Your task to perform on an android device: turn on translation in the chrome app Image 0: 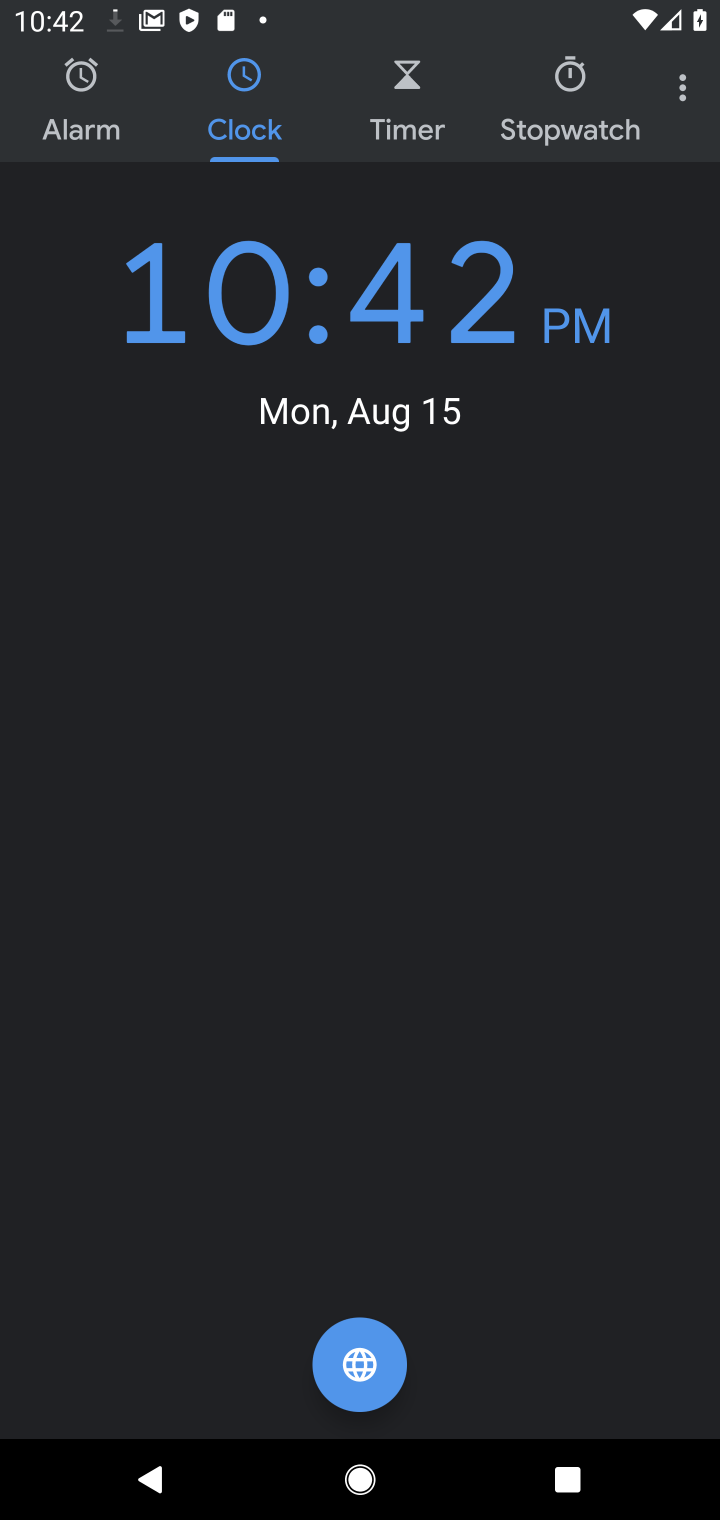
Step 0: press home button
Your task to perform on an android device: turn on translation in the chrome app Image 1: 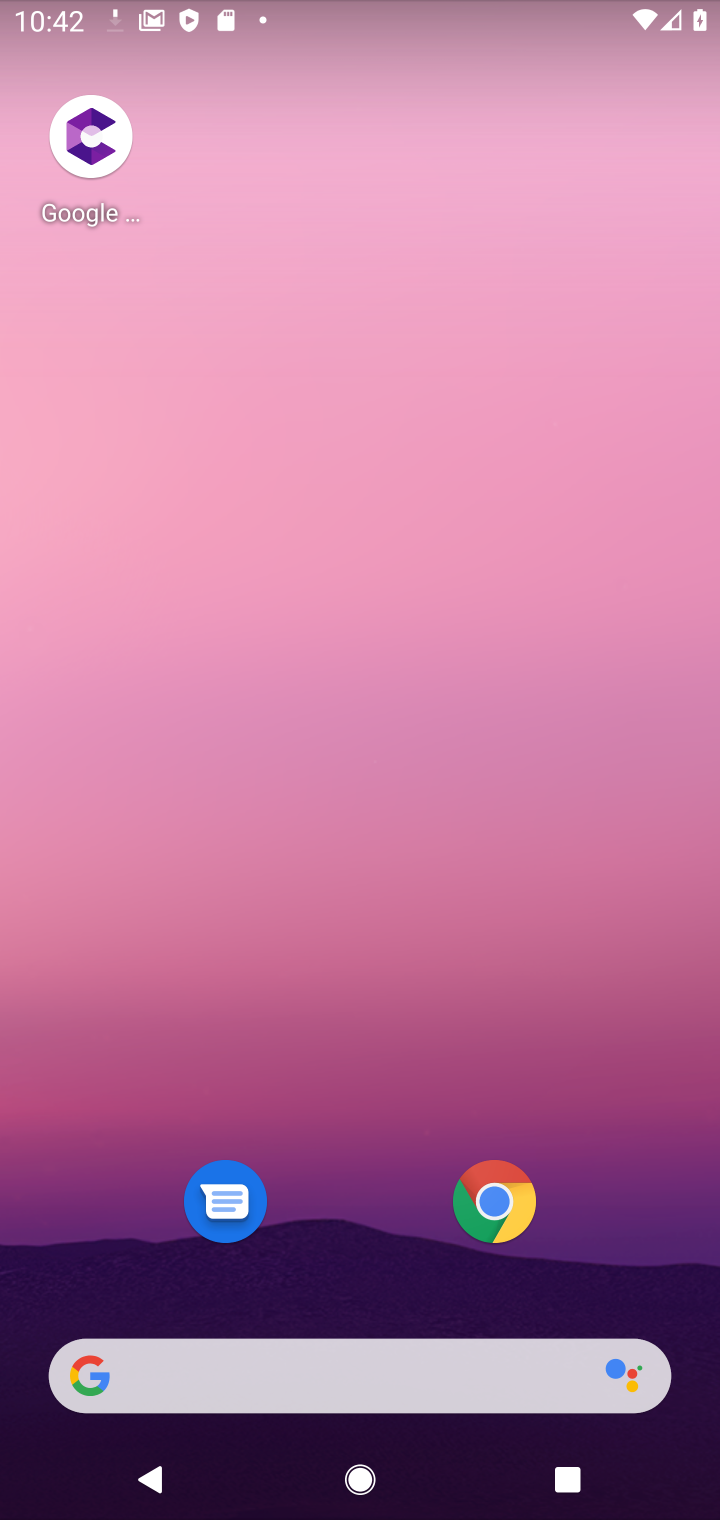
Step 1: click (482, 1212)
Your task to perform on an android device: turn on translation in the chrome app Image 2: 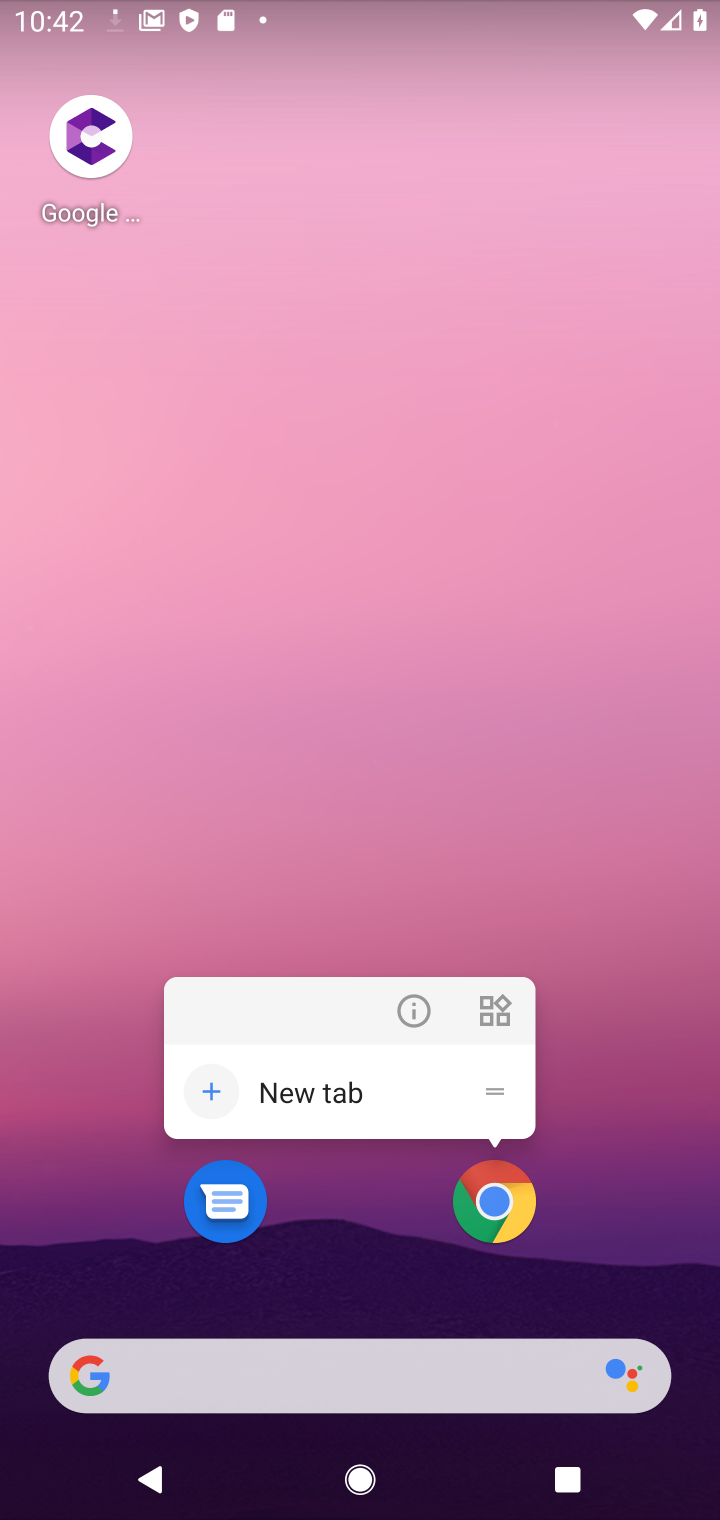
Step 2: click (493, 1217)
Your task to perform on an android device: turn on translation in the chrome app Image 3: 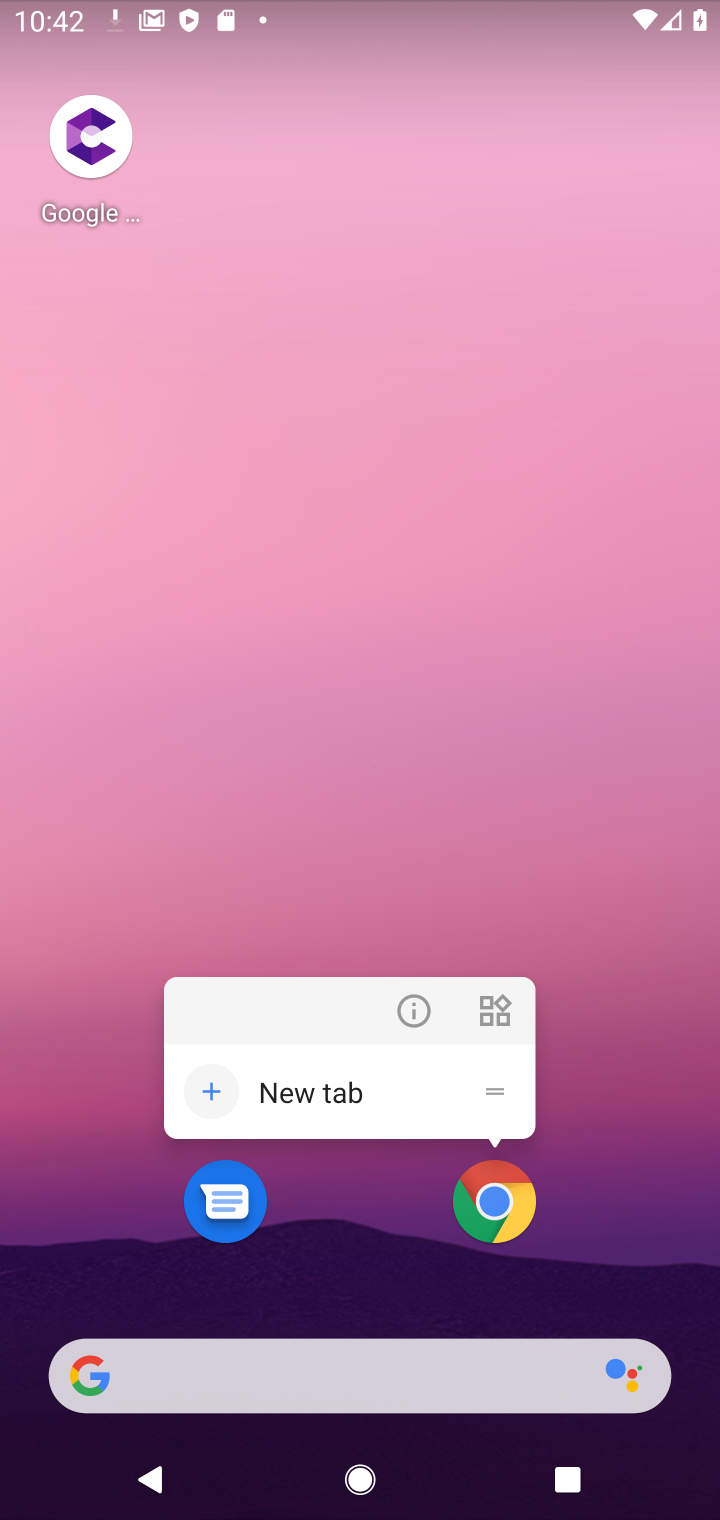
Step 3: click (491, 1203)
Your task to perform on an android device: turn on translation in the chrome app Image 4: 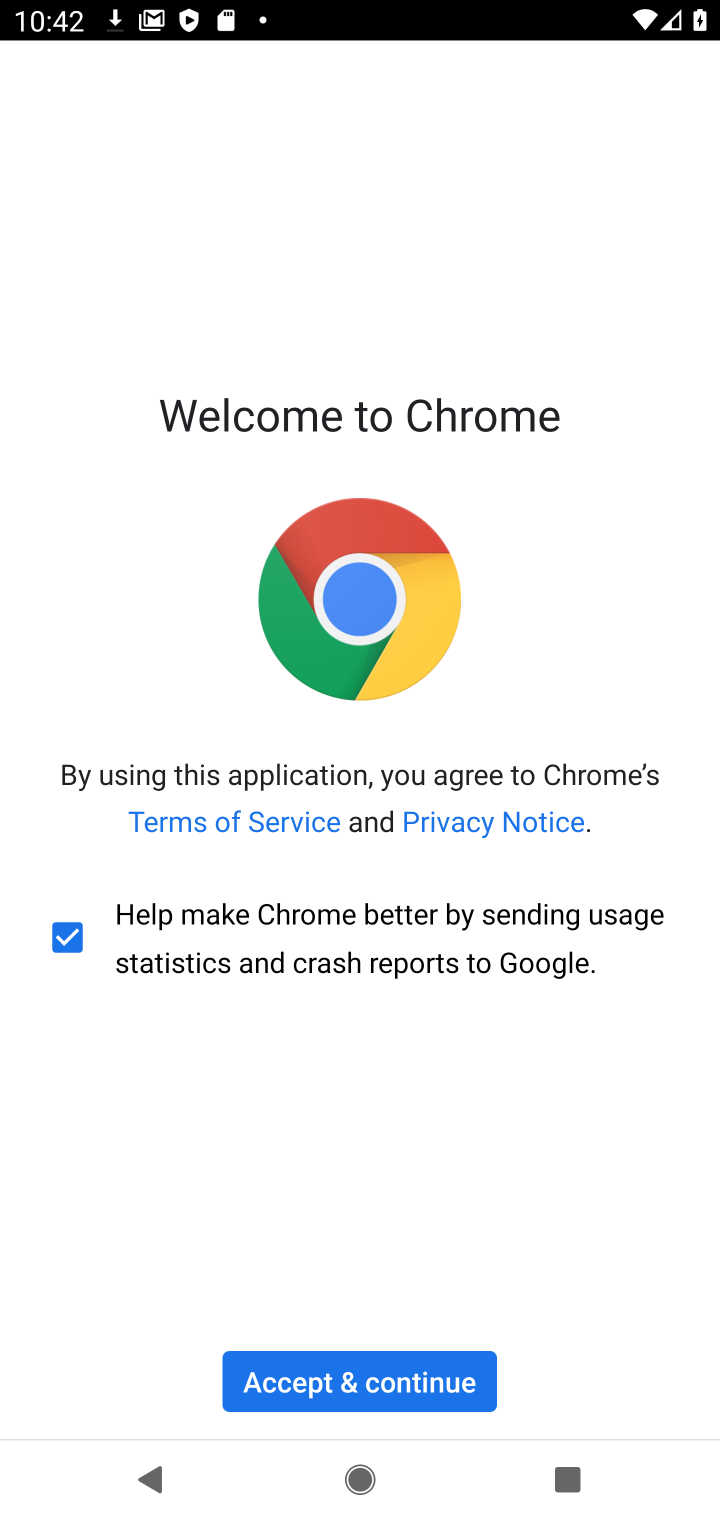
Step 4: click (349, 1395)
Your task to perform on an android device: turn on translation in the chrome app Image 5: 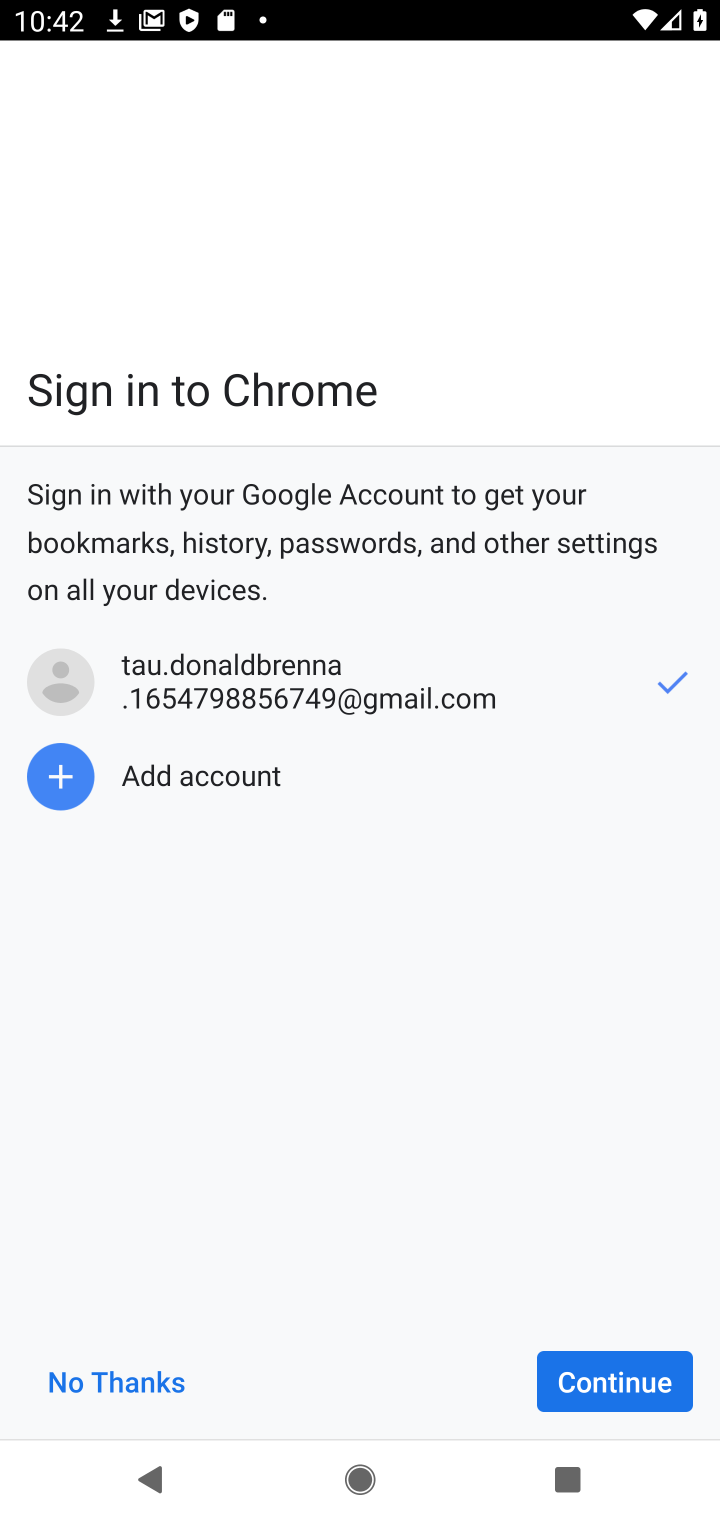
Step 5: click (552, 1392)
Your task to perform on an android device: turn on translation in the chrome app Image 6: 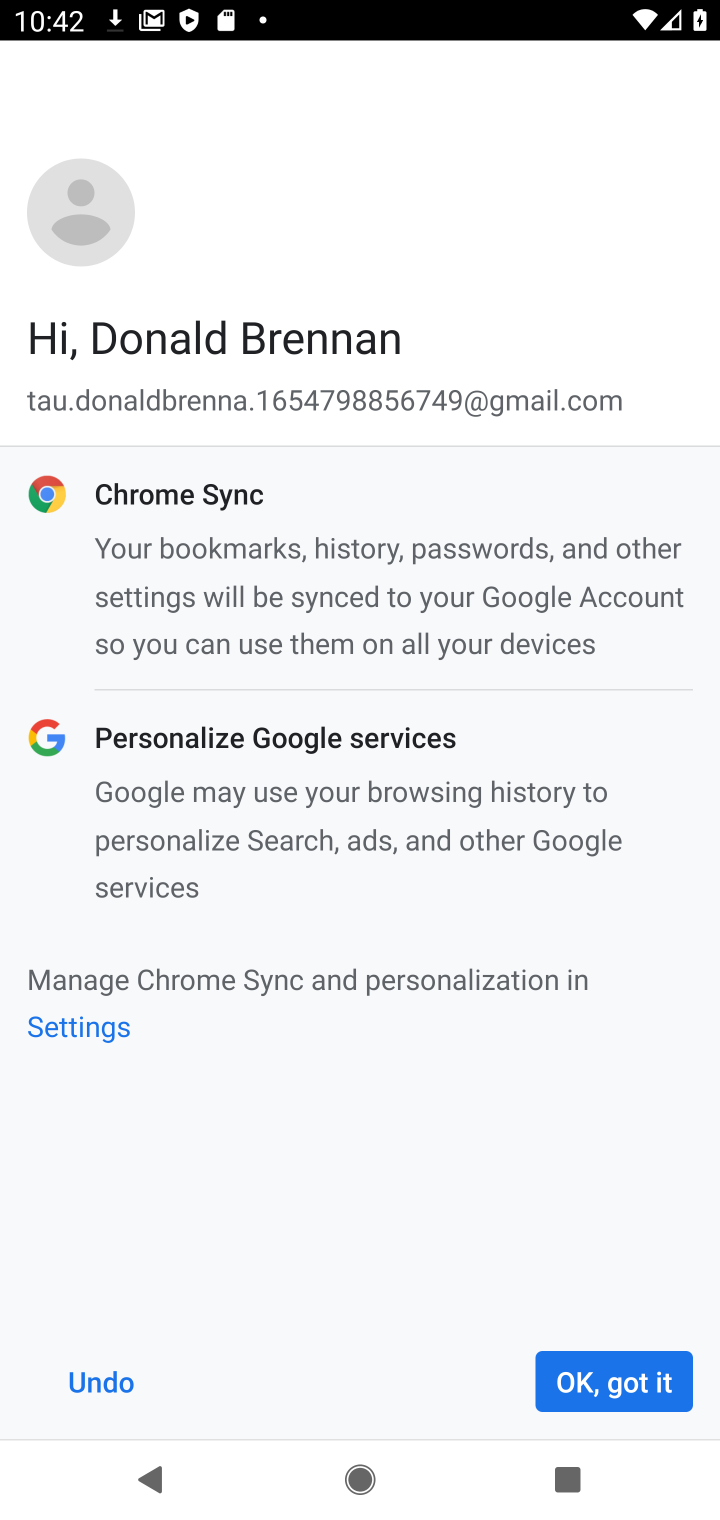
Step 6: click (552, 1392)
Your task to perform on an android device: turn on translation in the chrome app Image 7: 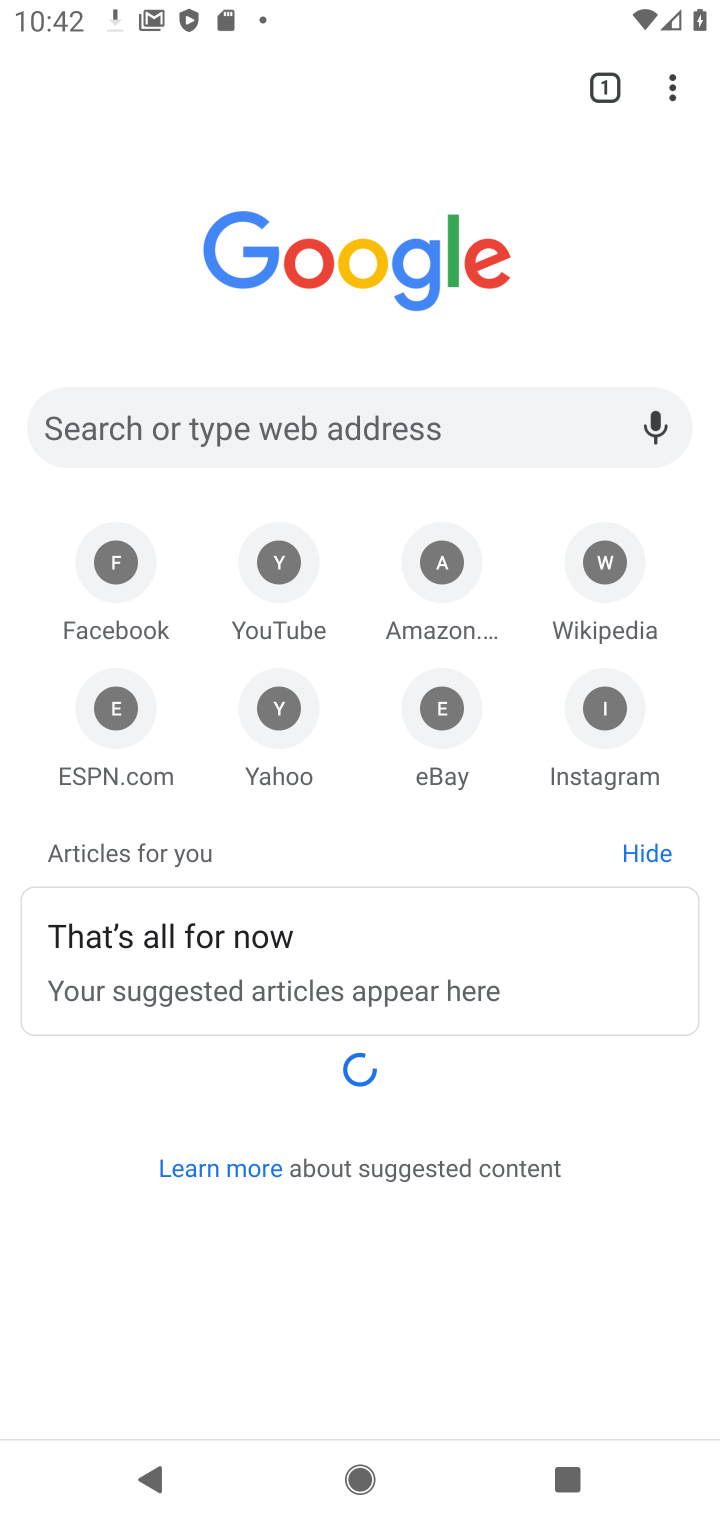
Step 7: click (682, 92)
Your task to perform on an android device: turn on translation in the chrome app Image 8: 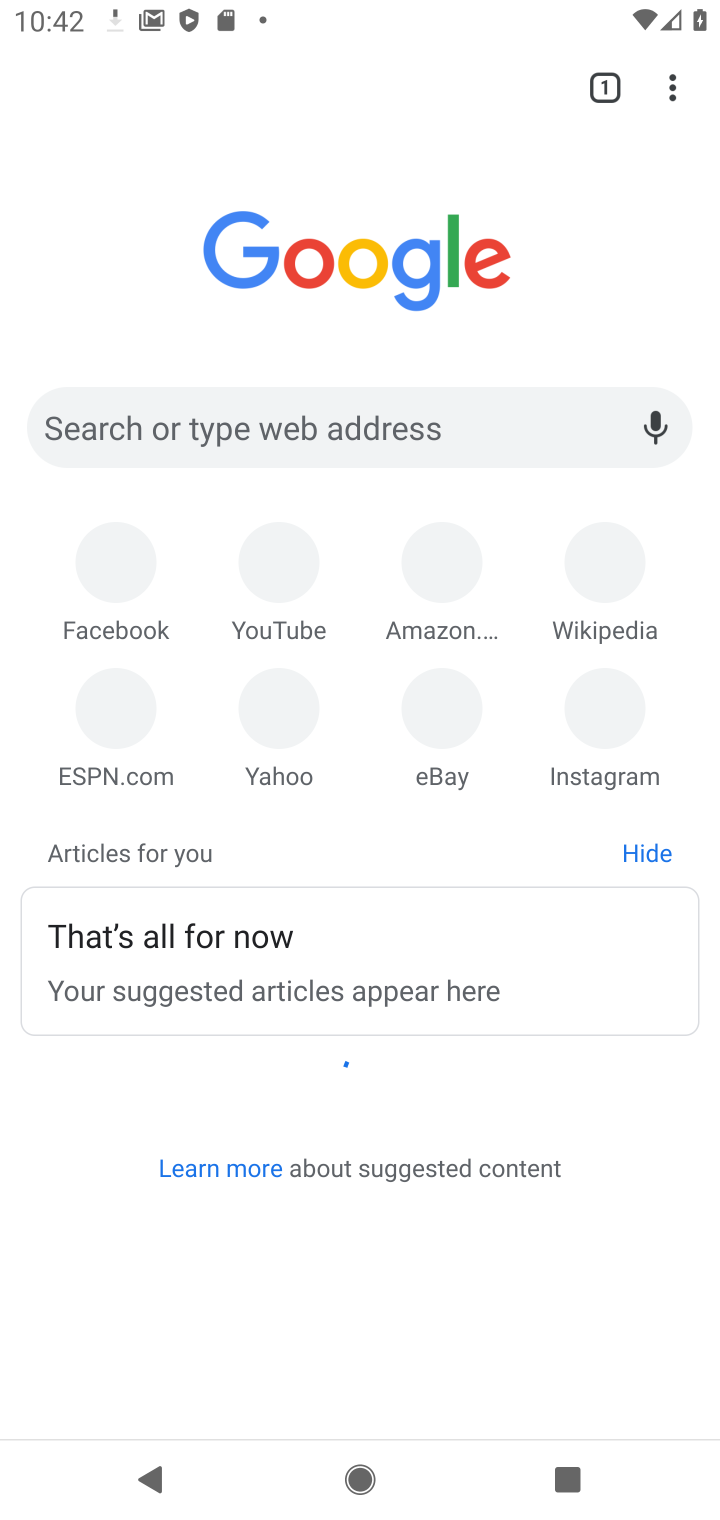
Step 8: click (671, 90)
Your task to perform on an android device: turn on translation in the chrome app Image 9: 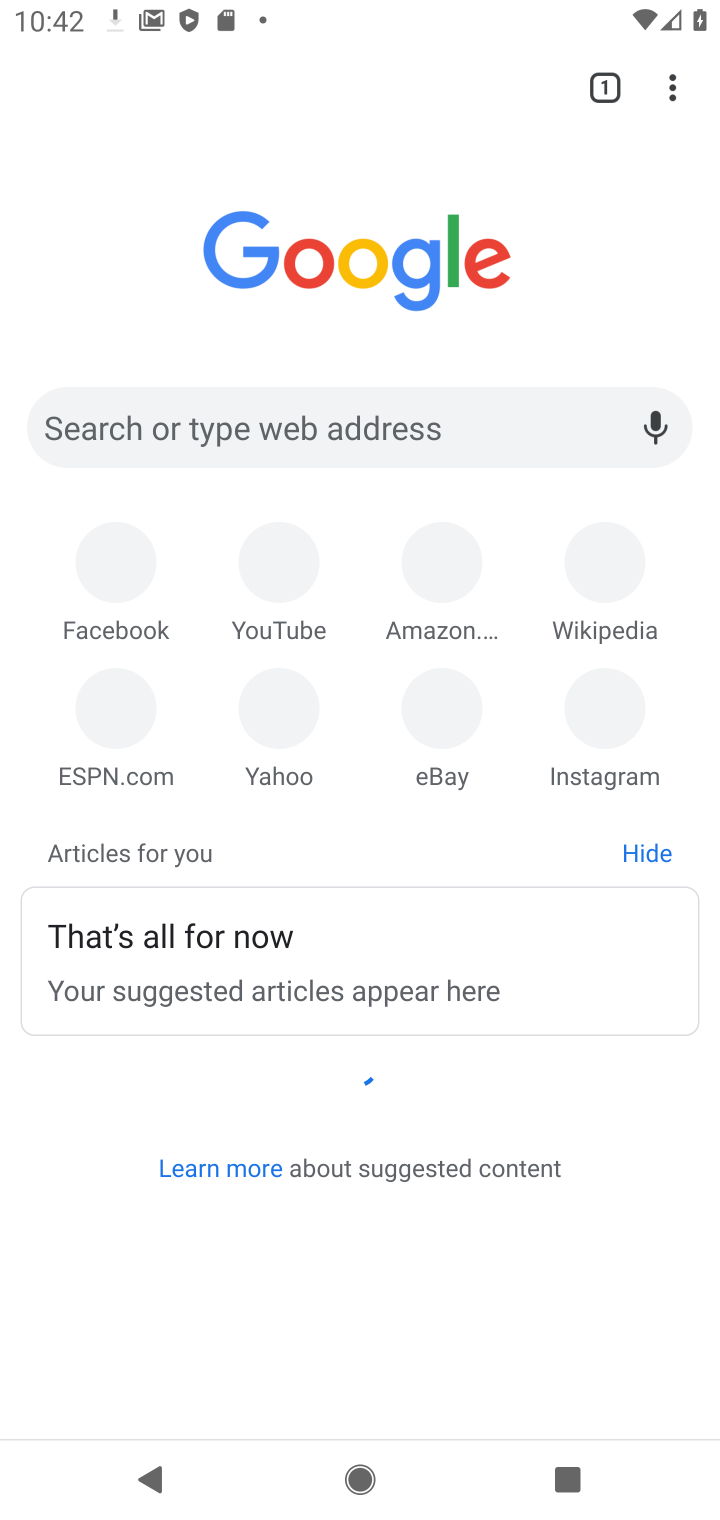
Step 9: click (664, 84)
Your task to perform on an android device: turn on translation in the chrome app Image 10: 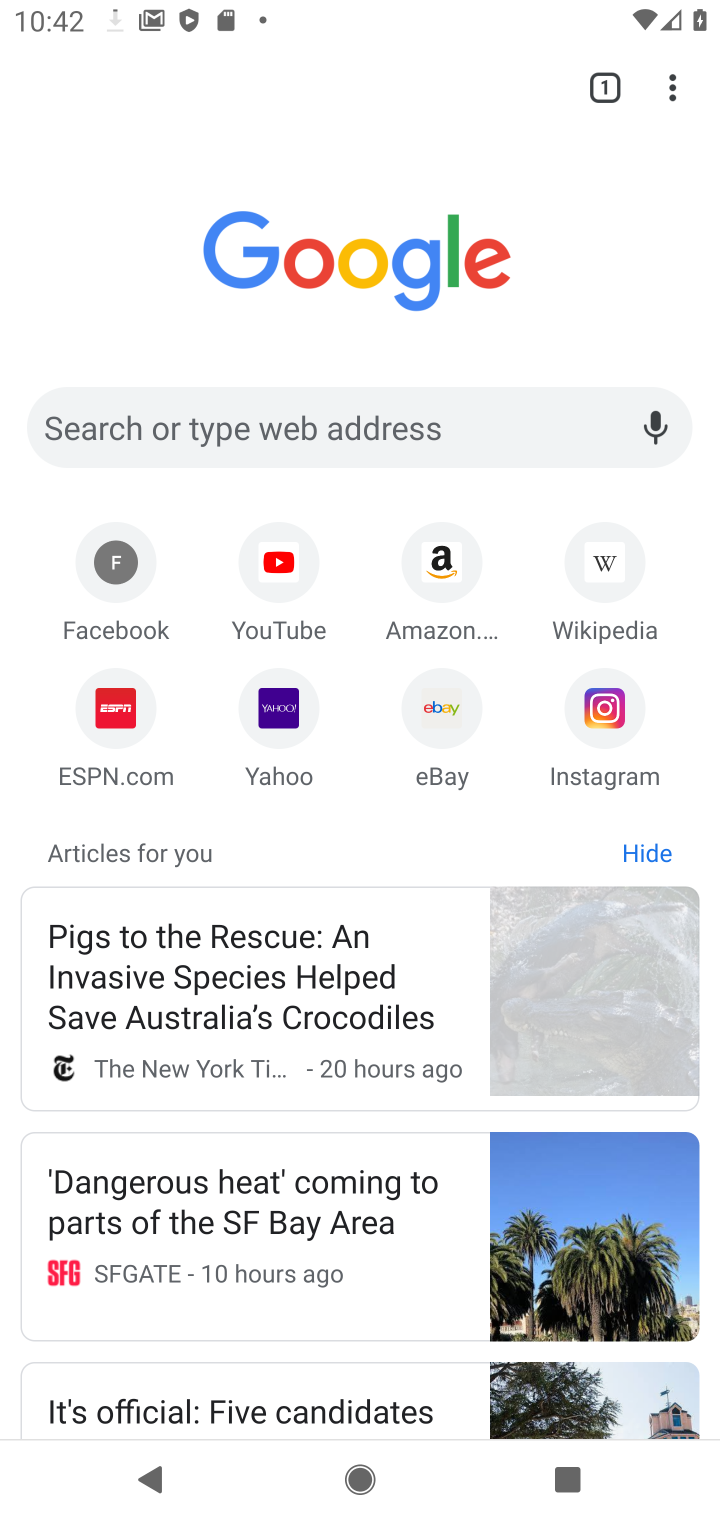
Step 10: click (671, 82)
Your task to perform on an android device: turn on translation in the chrome app Image 11: 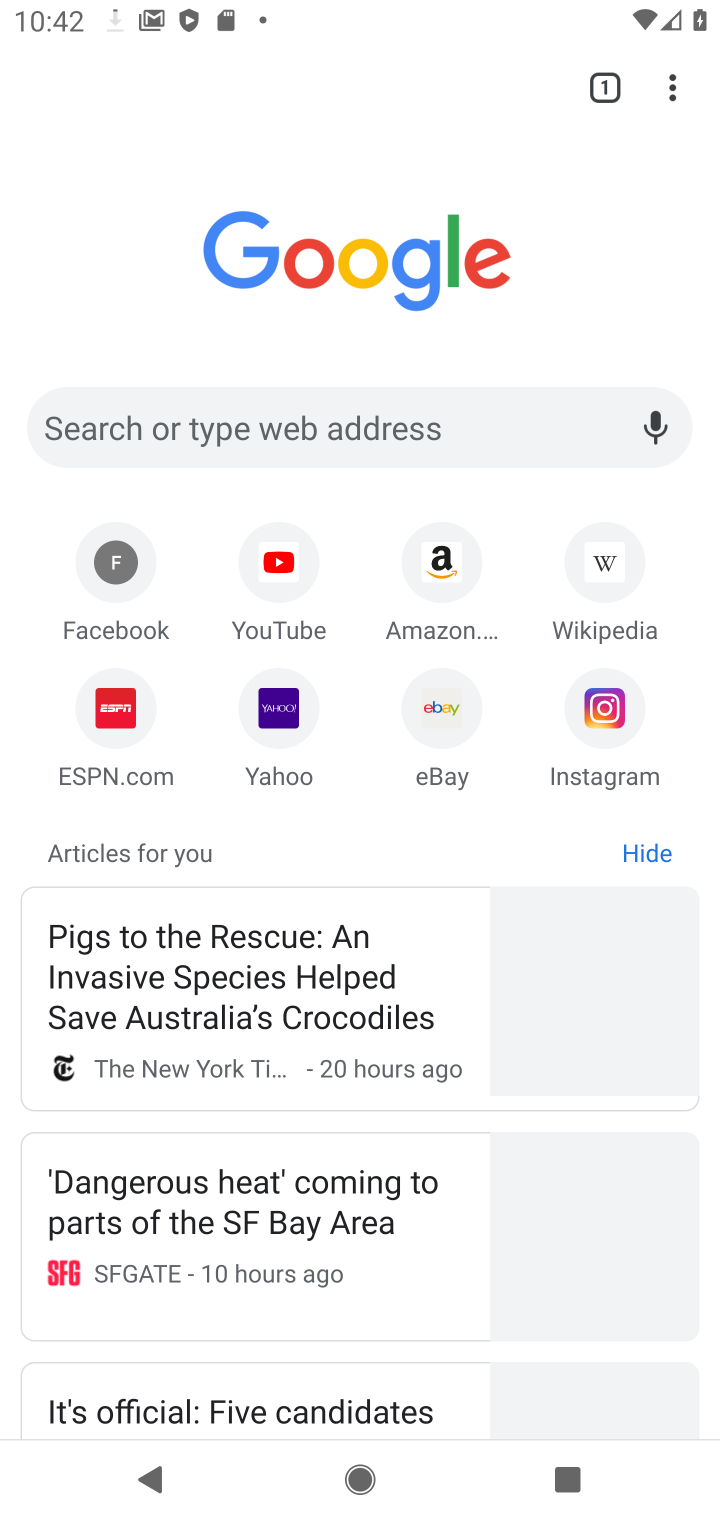
Step 11: click (670, 95)
Your task to perform on an android device: turn on translation in the chrome app Image 12: 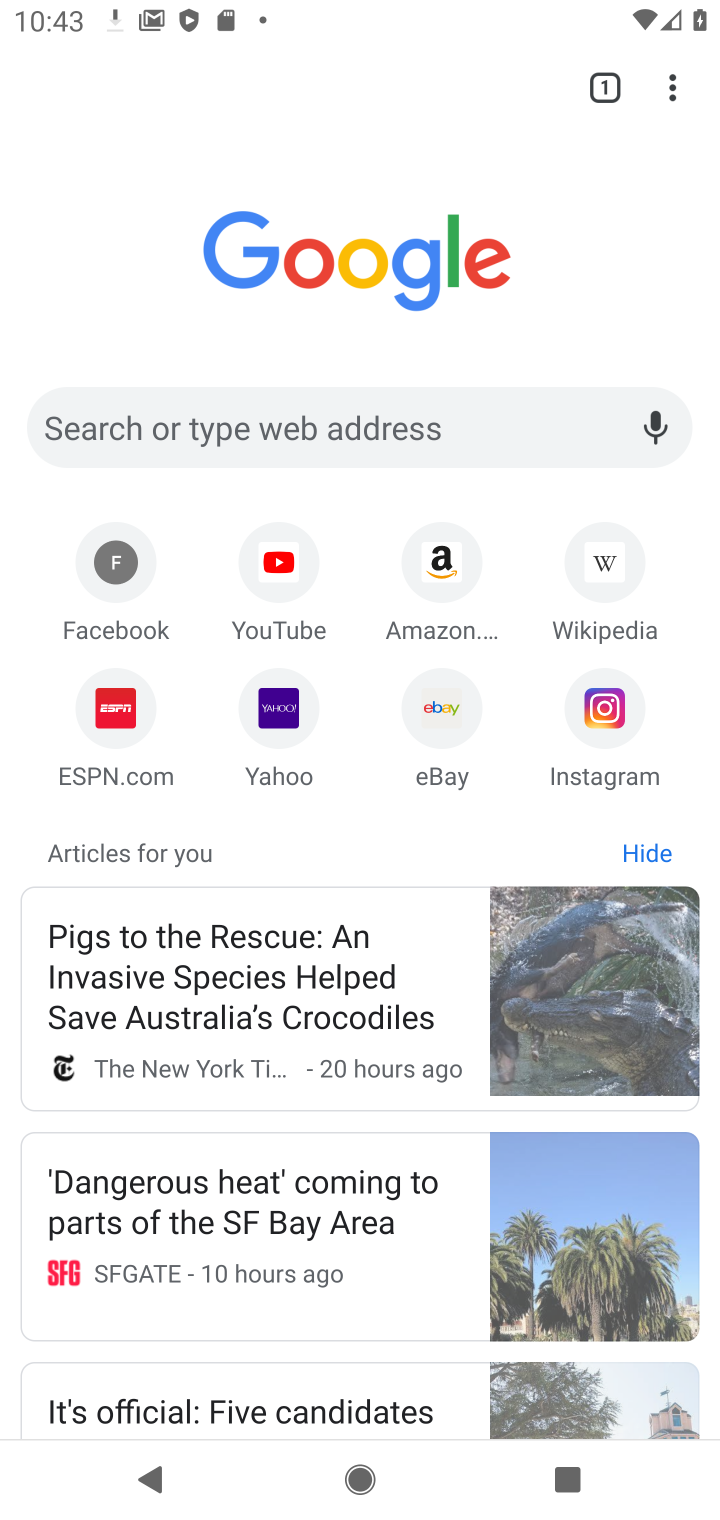
Step 12: click (672, 83)
Your task to perform on an android device: turn on translation in the chrome app Image 13: 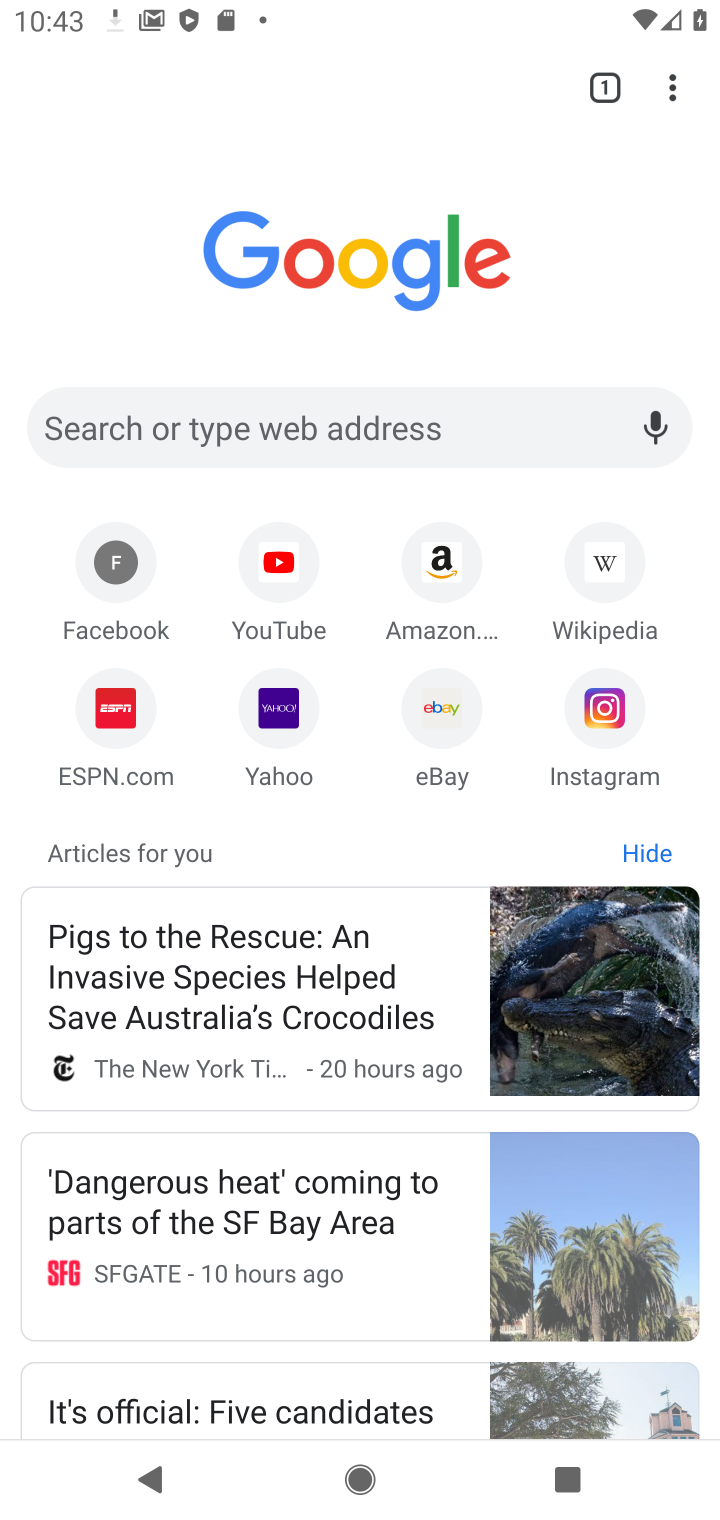
Step 13: click (663, 95)
Your task to perform on an android device: turn on translation in the chrome app Image 14: 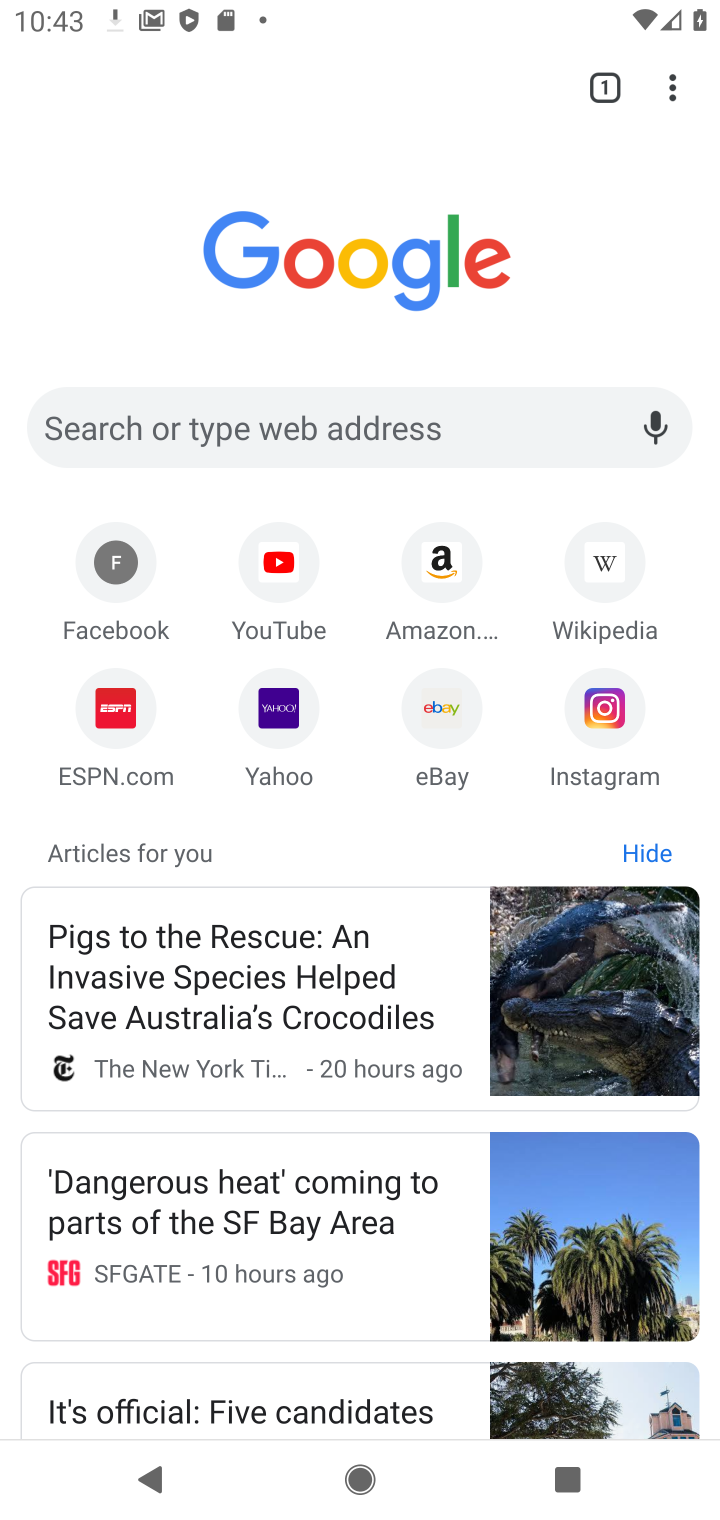
Step 14: click (663, 85)
Your task to perform on an android device: turn on translation in the chrome app Image 15: 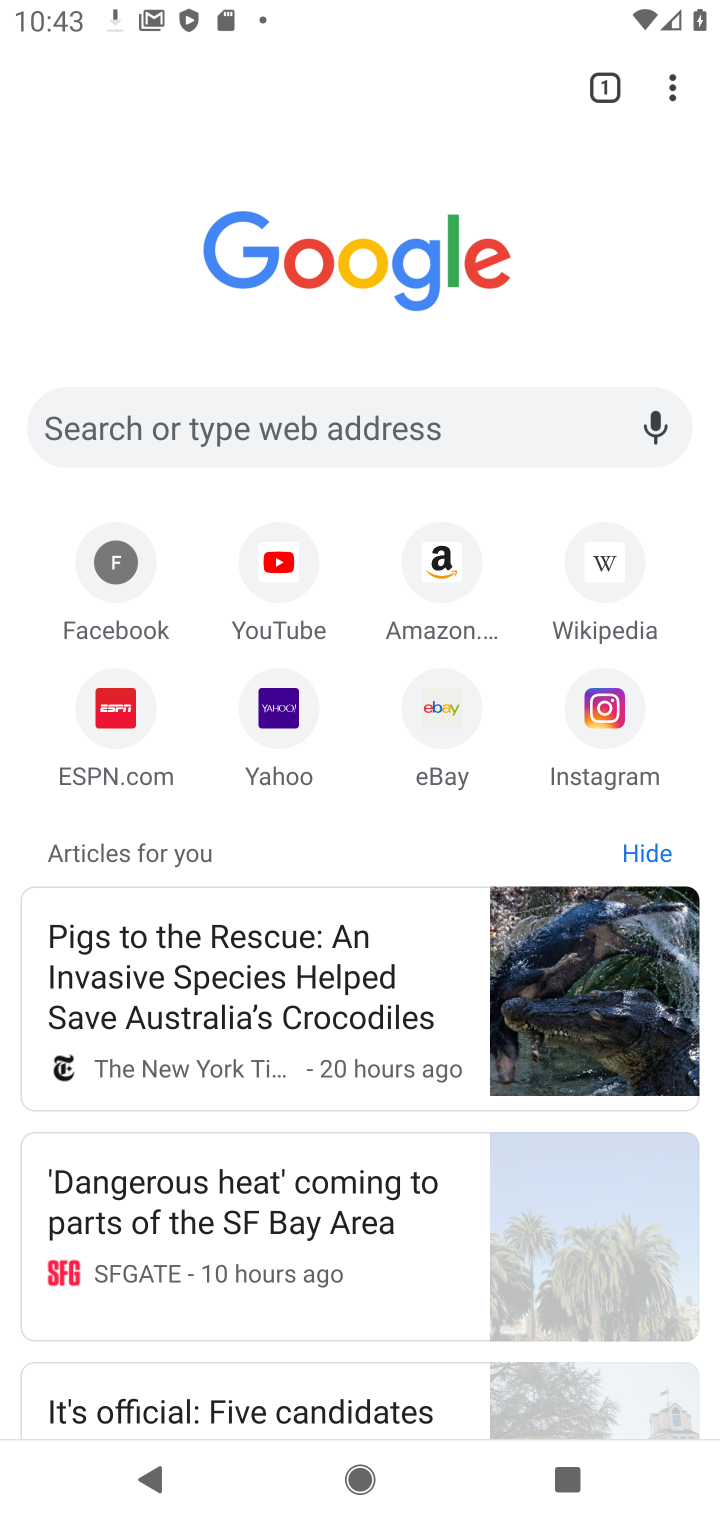
Step 15: click (671, 87)
Your task to perform on an android device: turn on translation in the chrome app Image 16: 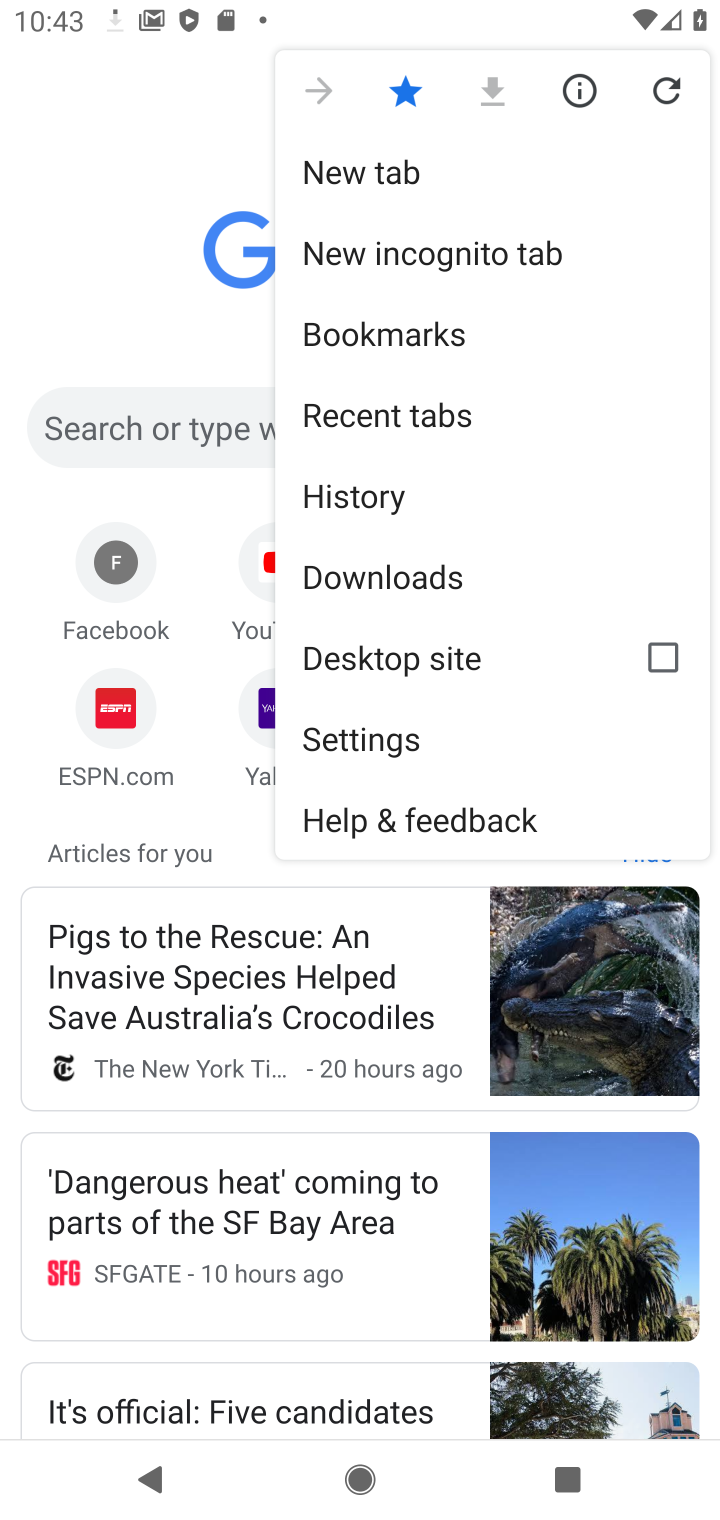
Step 16: click (321, 716)
Your task to perform on an android device: turn on translation in the chrome app Image 17: 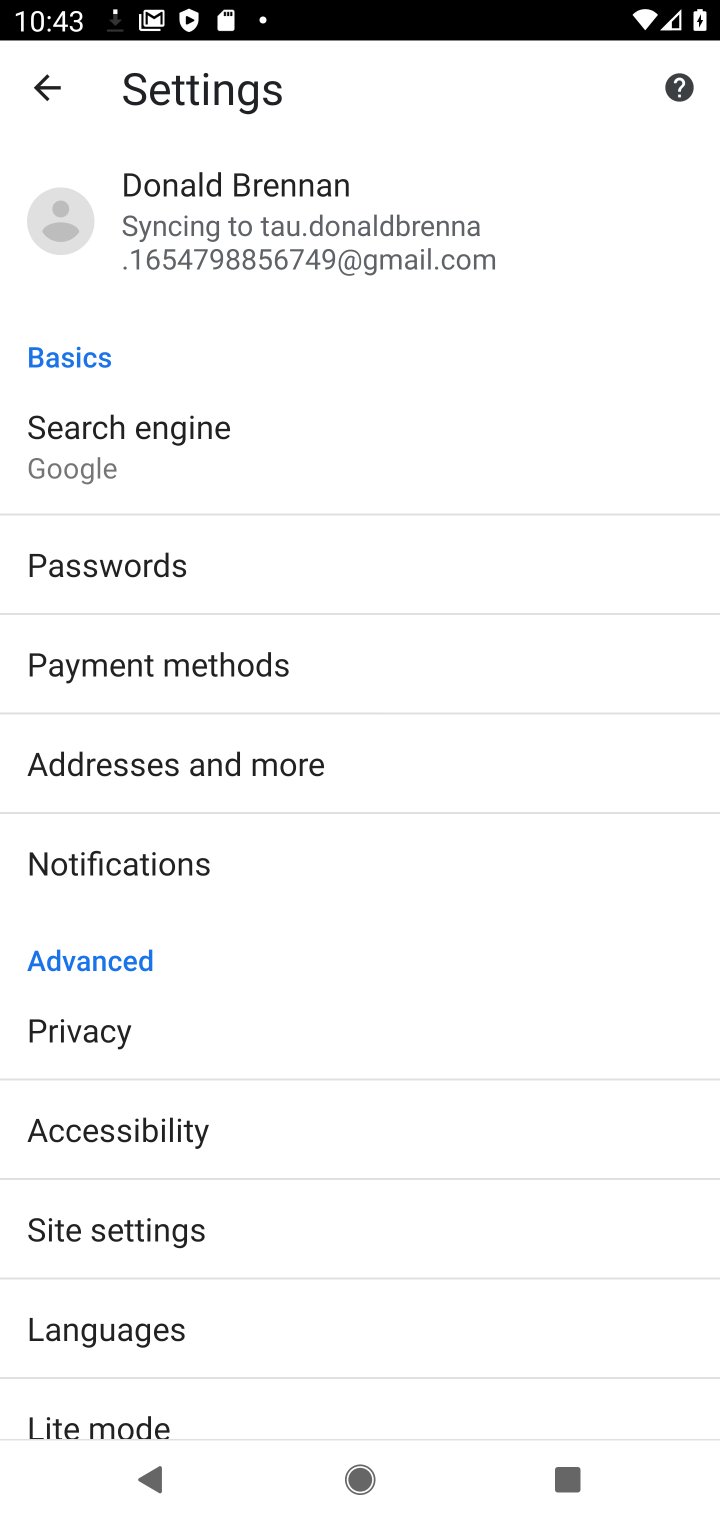
Step 17: click (128, 1324)
Your task to perform on an android device: turn on translation in the chrome app Image 18: 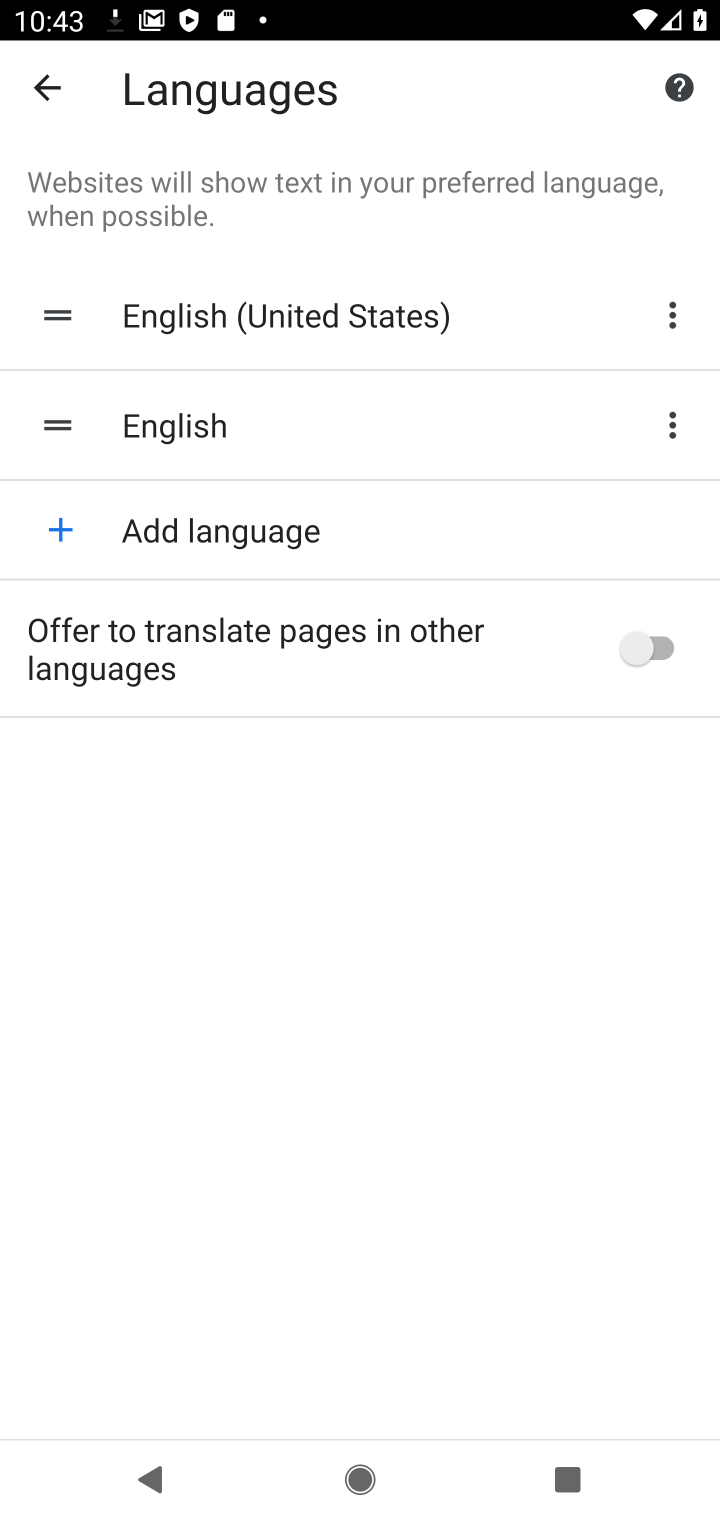
Step 18: click (644, 655)
Your task to perform on an android device: turn on translation in the chrome app Image 19: 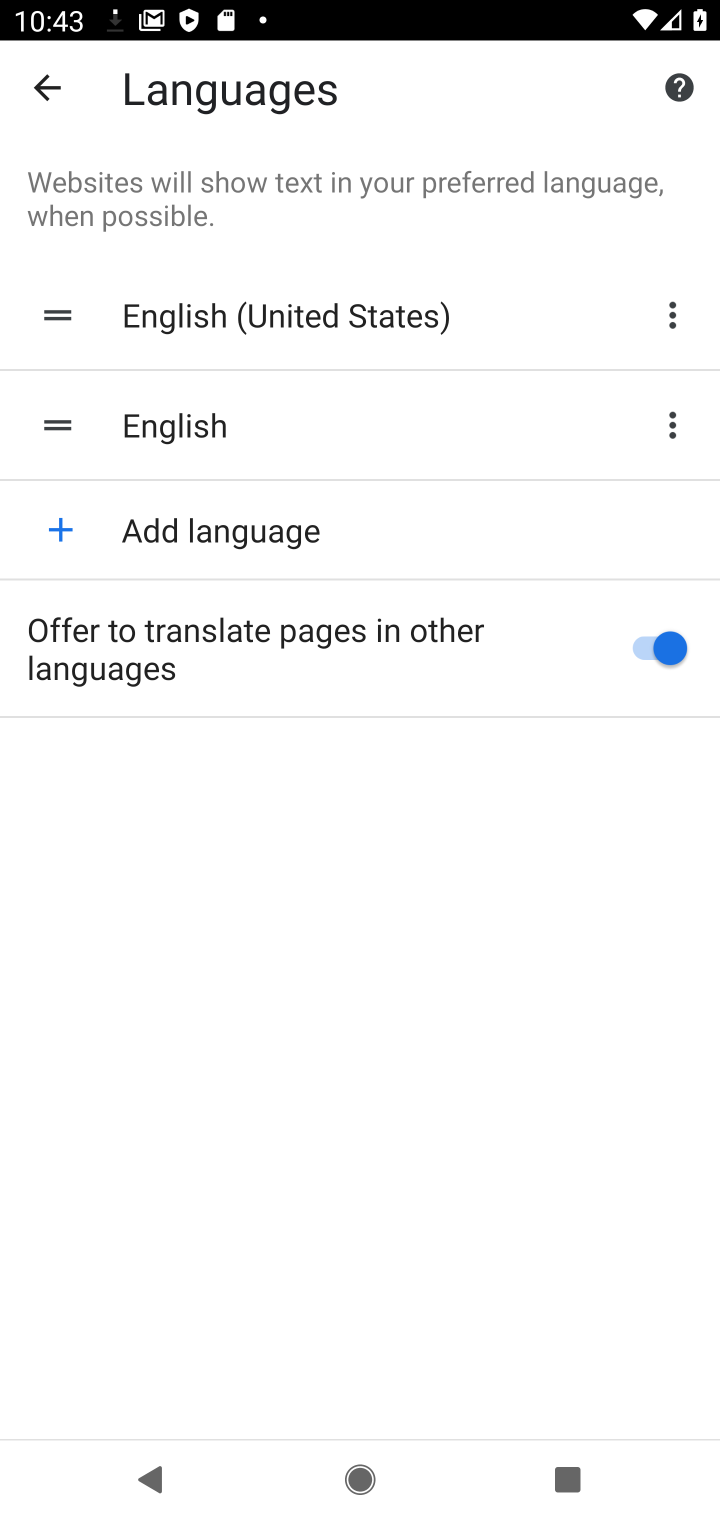
Step 19: task complete